Your task to perform on an android device: toggle data saver in the chrome app Image 0: 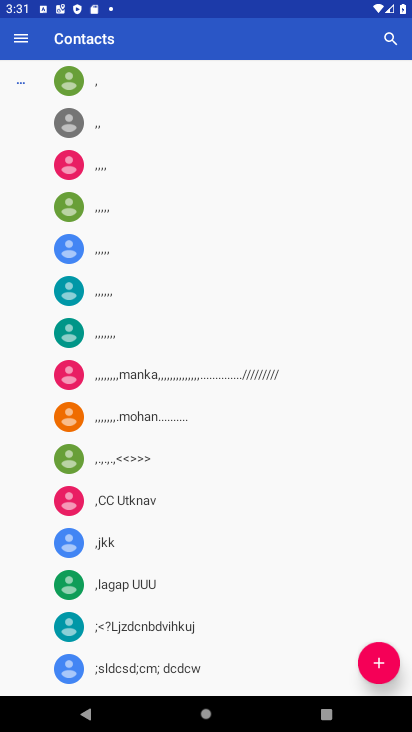
Step 0: press home button
Your task to perform on an android device: toggle data saver in the chrome app Image 1: 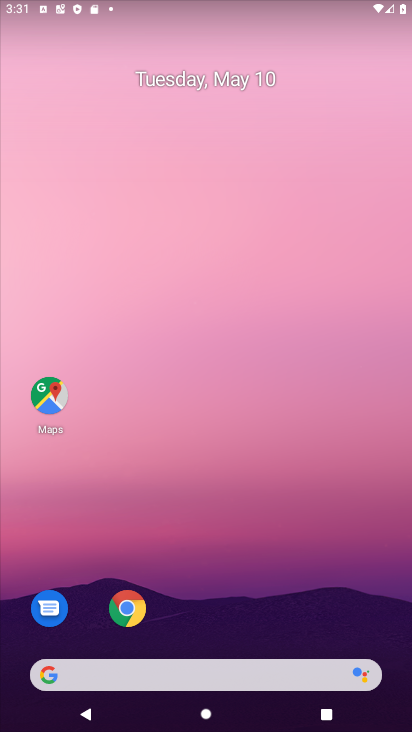
Step 1: click (125, 607)
Your task to perform on an android device: toggle data saver in the chrome app Image 2: 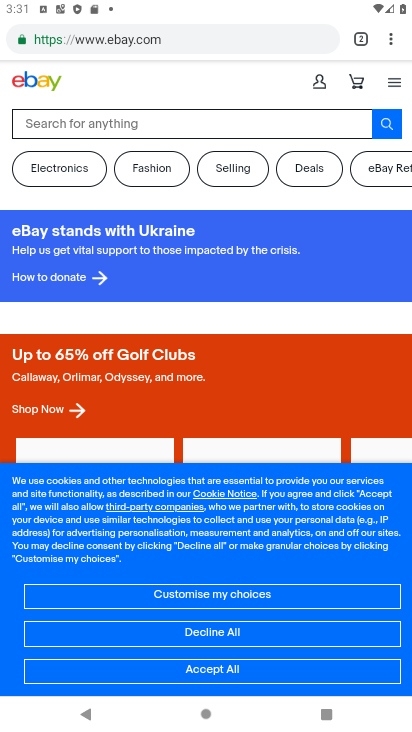
Step 2: click (389, 44)
Your task to perform on an android device: toggle data saver in the chrome app Image 3: 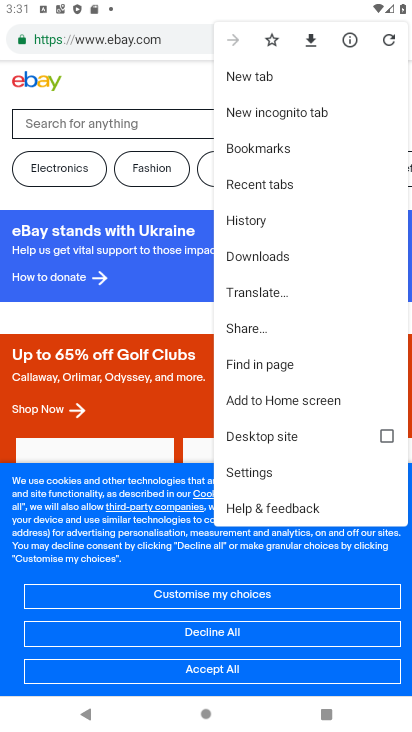
Step 3: click (248, 463)
Your task to perform on an android device: toggle data saver in the chrome app Image 4: 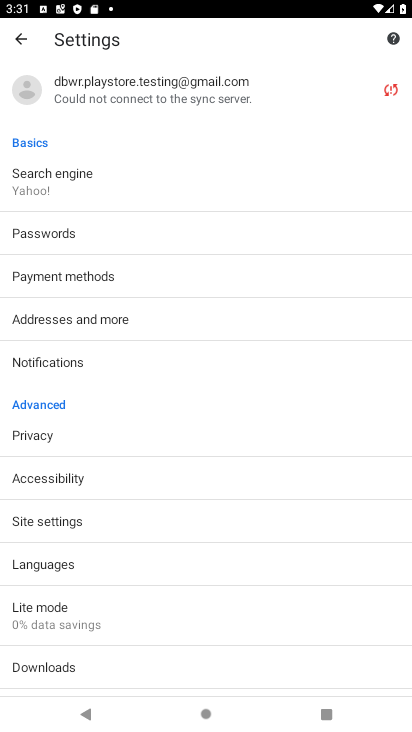
Step 4: click (51, 602)
Your task to perform on an android device: toggle data saver in the chrome app Image 5: 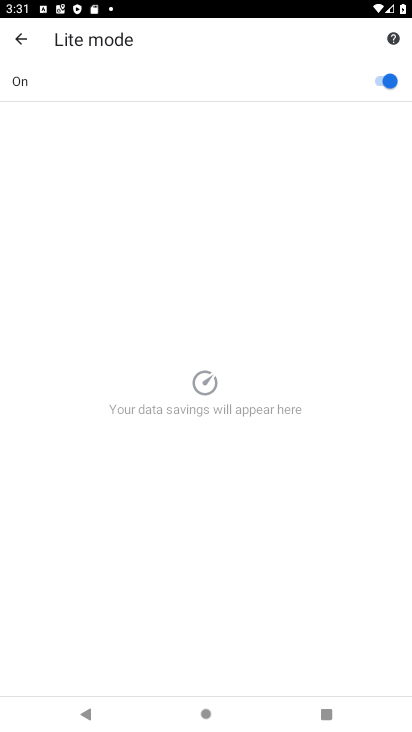
Step 5: click (378, 71)
Your task to perform on an android device: toggle data saver in the chrome app Image 6: 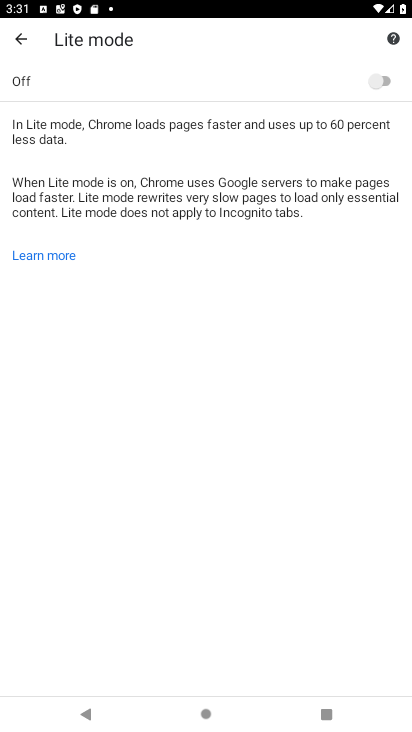
Step 6: task complete